Your task to perform on an android device: read, delete, or share a saved page in the chrome app Image 0: 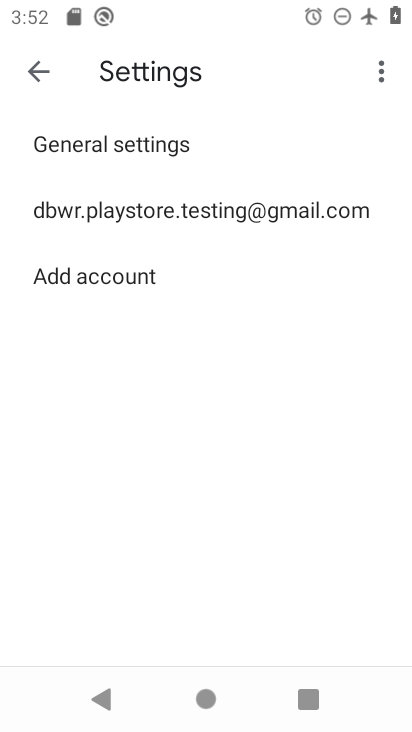
Step 0: click (285, 224)
Your task to perform on an android device: read, delete, or share a saved page in the chrome app Image 1: 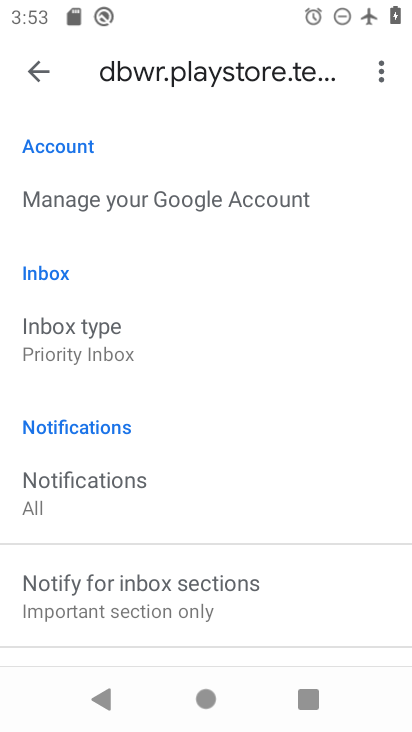
Step 1: press home button
Your task to perform on an android device: read, delete, or share a saved page in the chrome app Image 2: 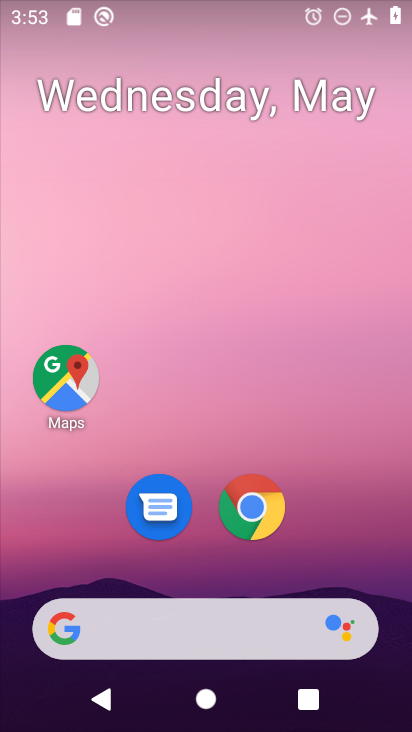
Step 2: click (284, 521)
Your task to perform on an android device: read, delete, or share a saved page in the chrome app Image 3: 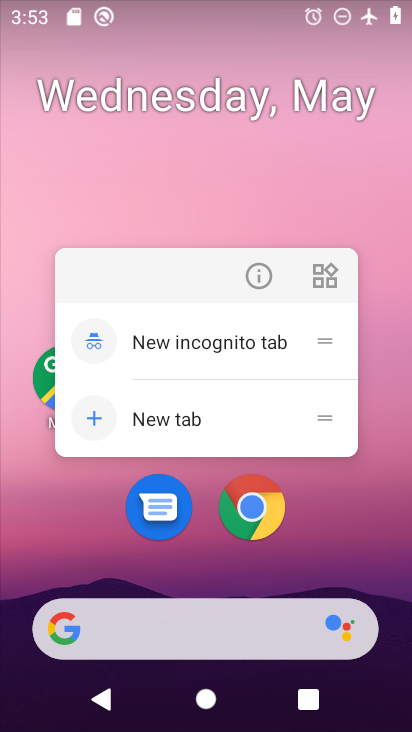
Step 3: click (261, 531)
Your task to perform on an android device: read, delete, or share a saved page in the chrome app Image 4: 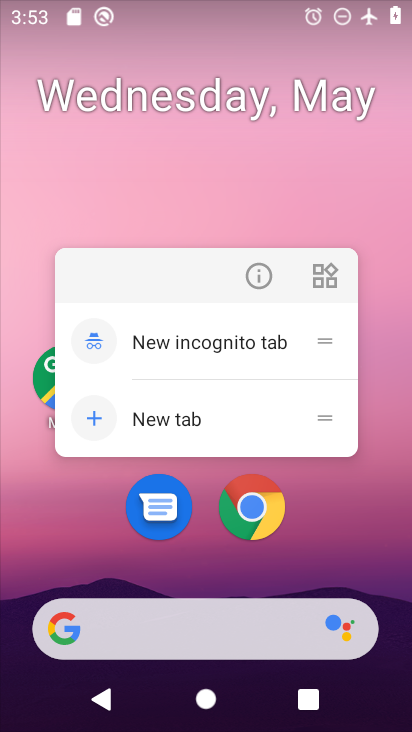
Step 4: click (260, 500)
Your task to perform on an android device: read, delete, or share a saved page in the chrome app Image 5: 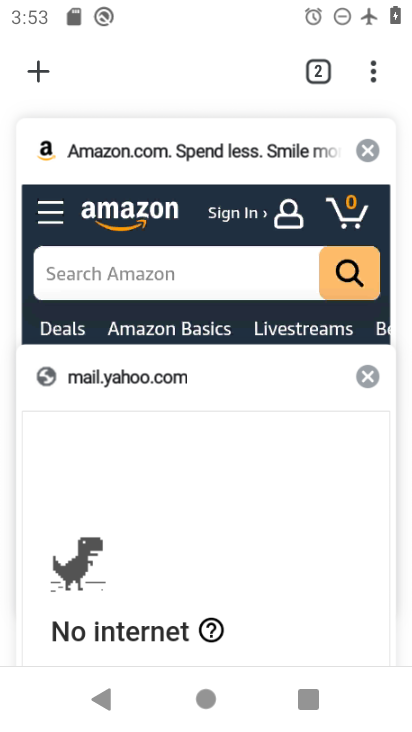
Step 5: click (37, 79)
Your task to perform on an android device: read, delete, or share a saved page in the chrome app Image 6: 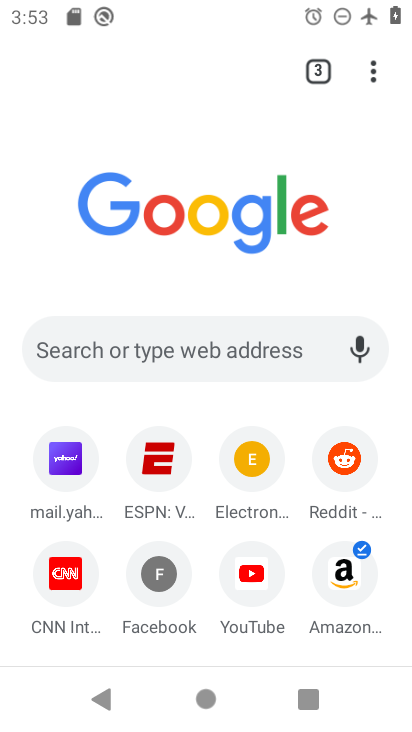
Step 6: click (371, 67)
Your task to perform on an android device: read, delete, or share a saved page in the chrome app Image 7: 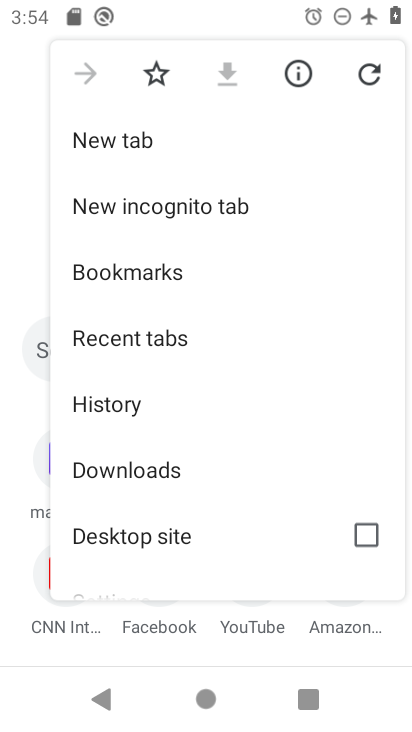
Step 7: drag from (182, 527) to (185, 297)
Your task to perform on an android device: read, delete, or share a saved page in the chrome app Image 8: 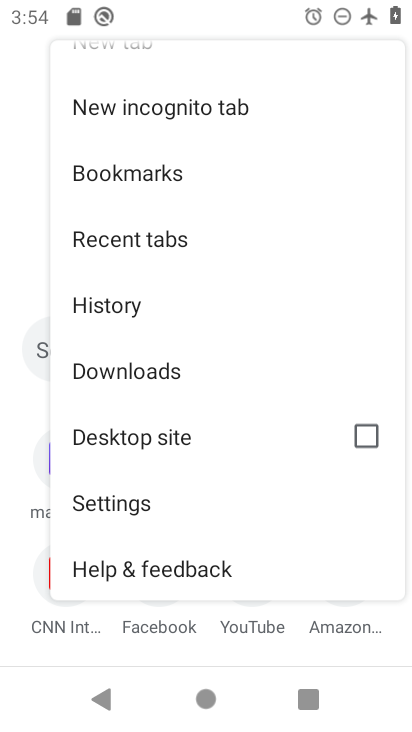
Step 8: click (149, 386)
Your task to perform on an android device: read, delete, or share a saved page in the chrome app Image 9: 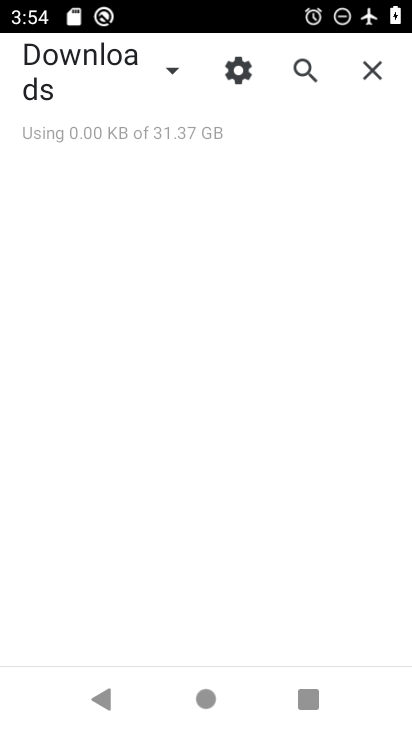
Step 9: click (172, 76)
Your task to perform on an android device: read, delete, or share a saved page in the chrome app Image 10: 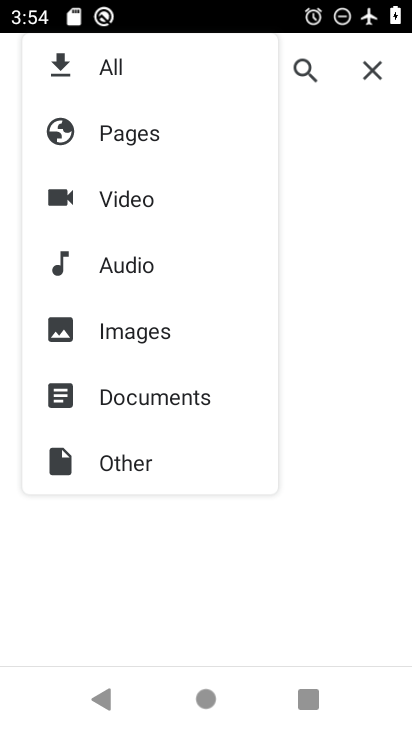
Step 10: click (121, 136)
Your task to perform on an android device: read, delete, or share a saved page in the chrome app Image 11: 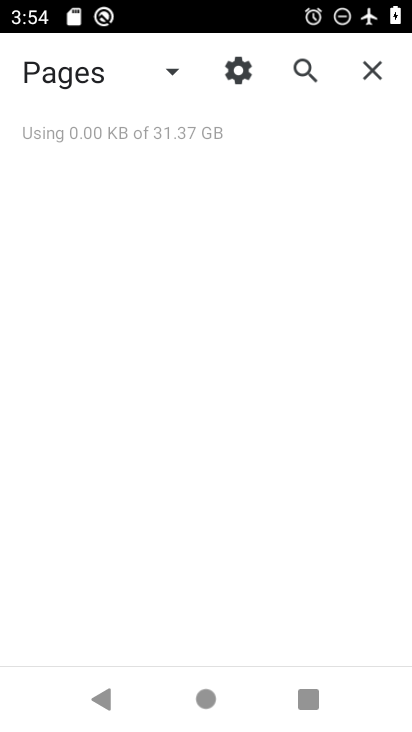
Step 11: task complete